Your task to perform on an android device: Go to accessibility settings Image 0: 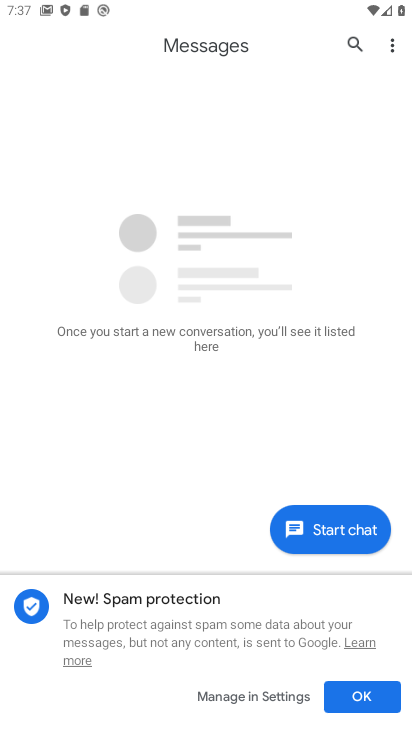
Step 0: press home button
Your task to perform on an android device: Go to accessibility settings Image 1: 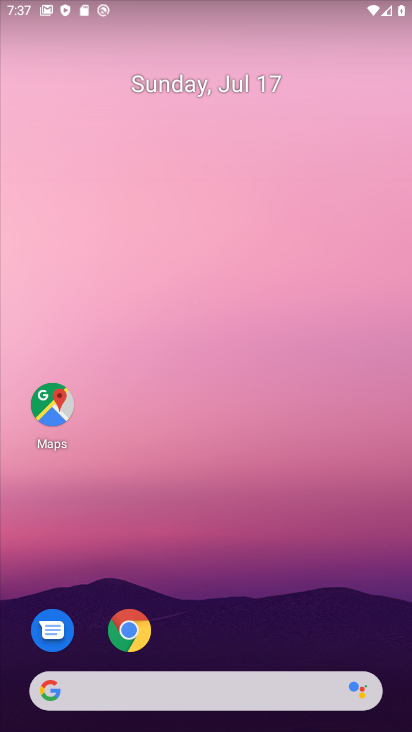
Step 1: drag from (195, 632) to (162, 212)
Your task to perform on an android device: Go to accessibility settings Image 2: 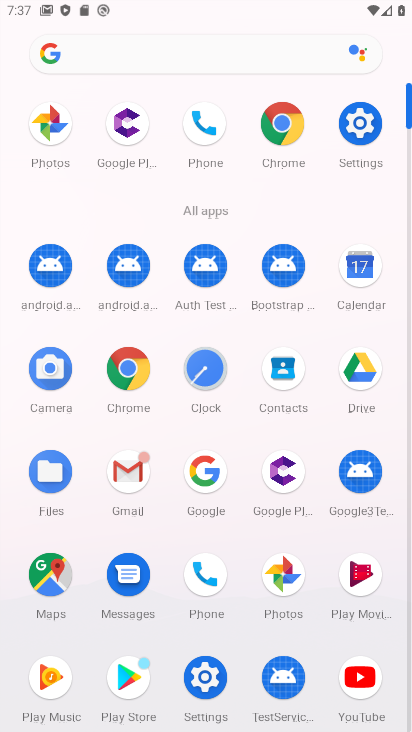
Step 2: click (367, 110)
Your task to perform on an android device: Go to accessibility settings Image 3: 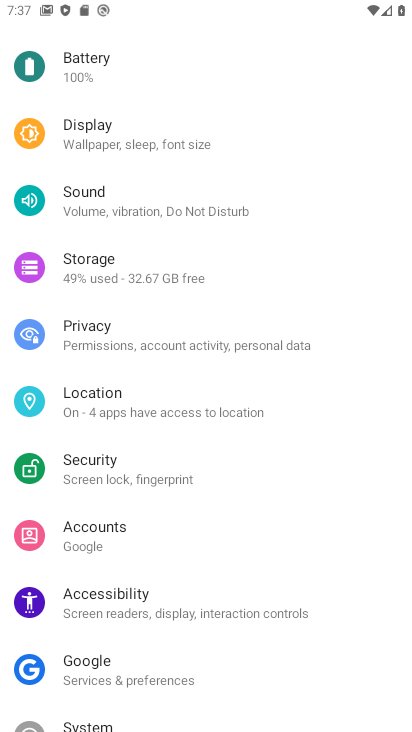
Step 3: click (175, 609)
Your task to perform on an android device: Go to accessibility settings Image 4: 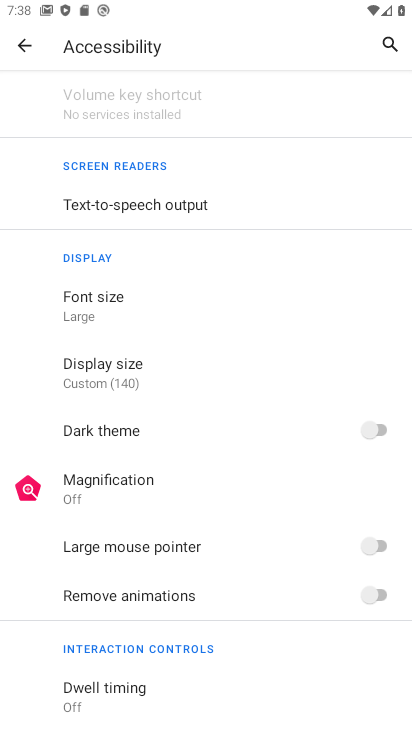
Step 4: task complete